Your task to perform on an android device: Turn off the flashlight Image 0: 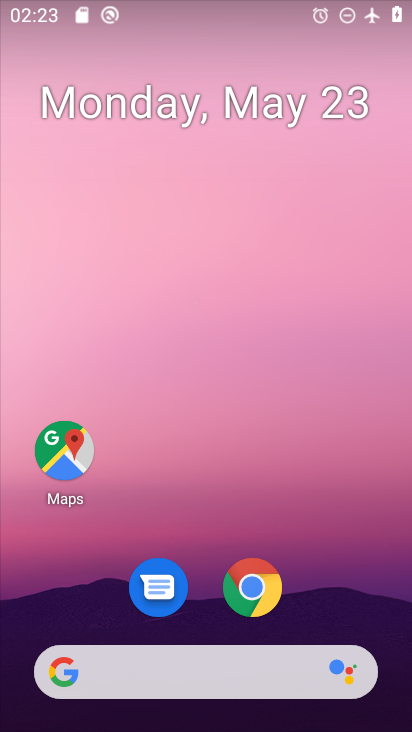
Step 0: drag from (358, 574) to (310, 247)
Your task to perform on an android device: Turn off the flashlight Image 1: 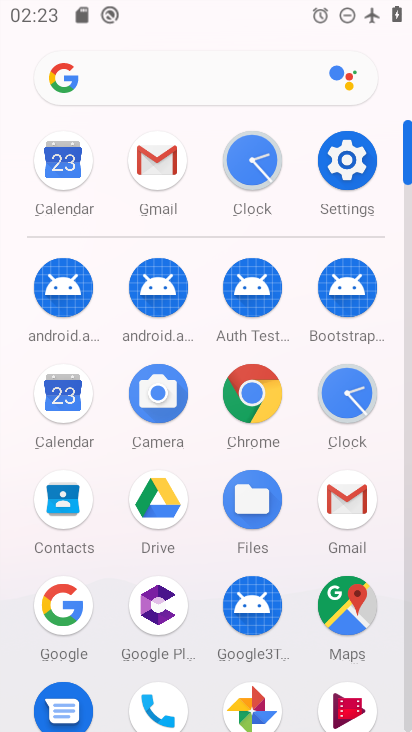
Step 1: click (334, 163)
Your task to perform on an android device: Turn off the flashlight Image 2: 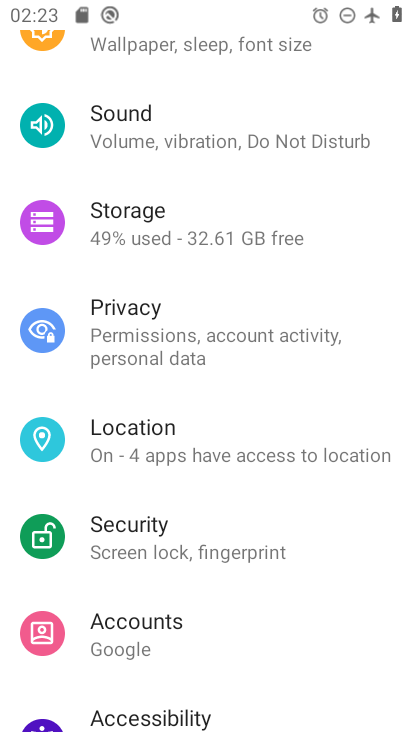
Step 2: click (203, 266)
Your task to perform on an android device: Turn off the flashlight Image 3: 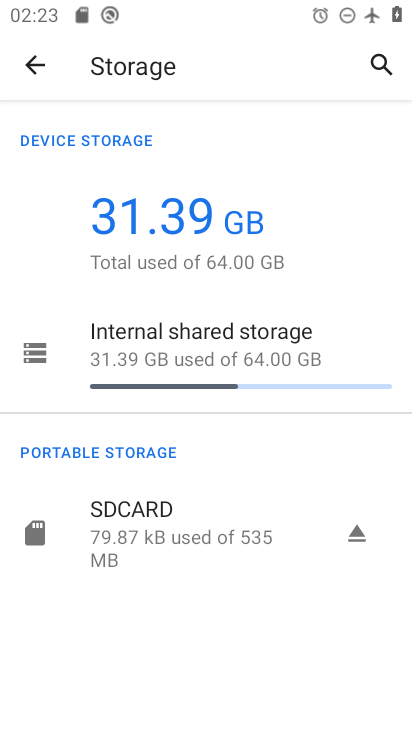
Step 3: task complete